Your task to perform on an android device: check data usage Image 0: 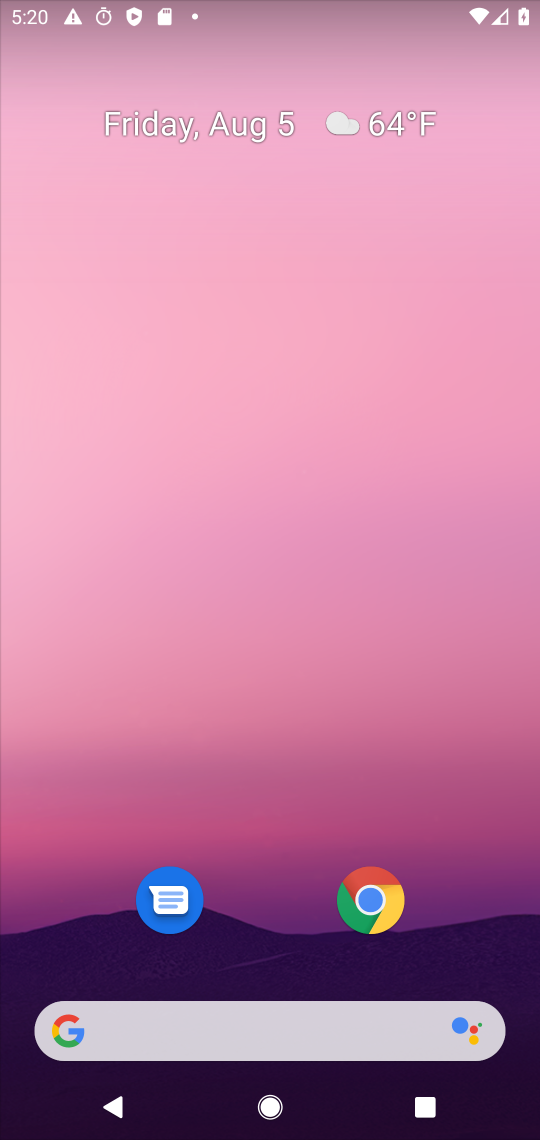
Step 0: drag from (253, 1012) to (271, 78)
Your task to perform on an android device: check data usage Image 1: 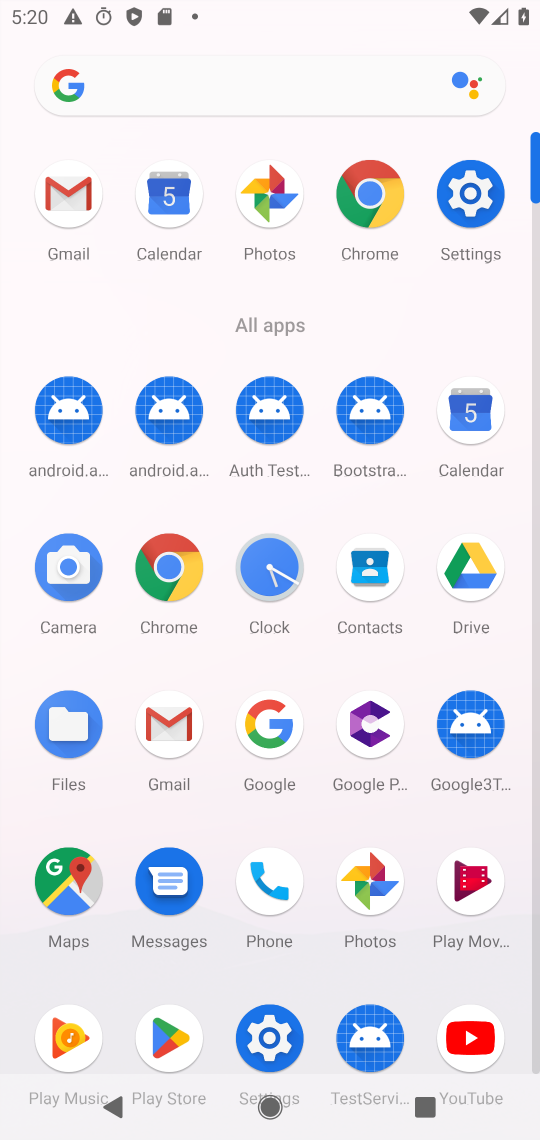
Step 1: click (458, 218)
Your task to perform on an android device: check data usage Image 2: 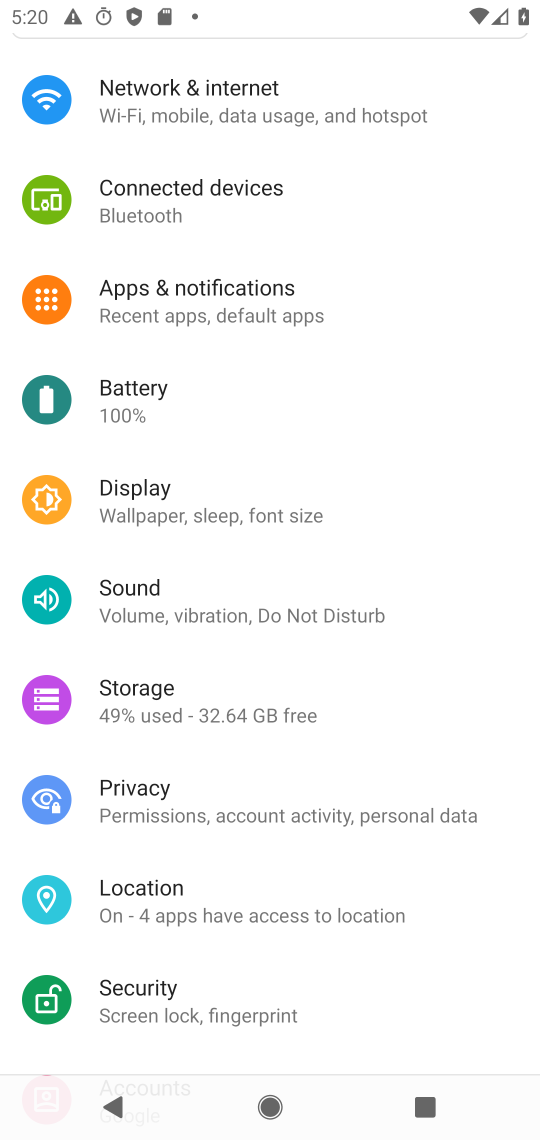
Step 2: click (154, 107)
Your task to perform on an android device: check data usage Image 3: 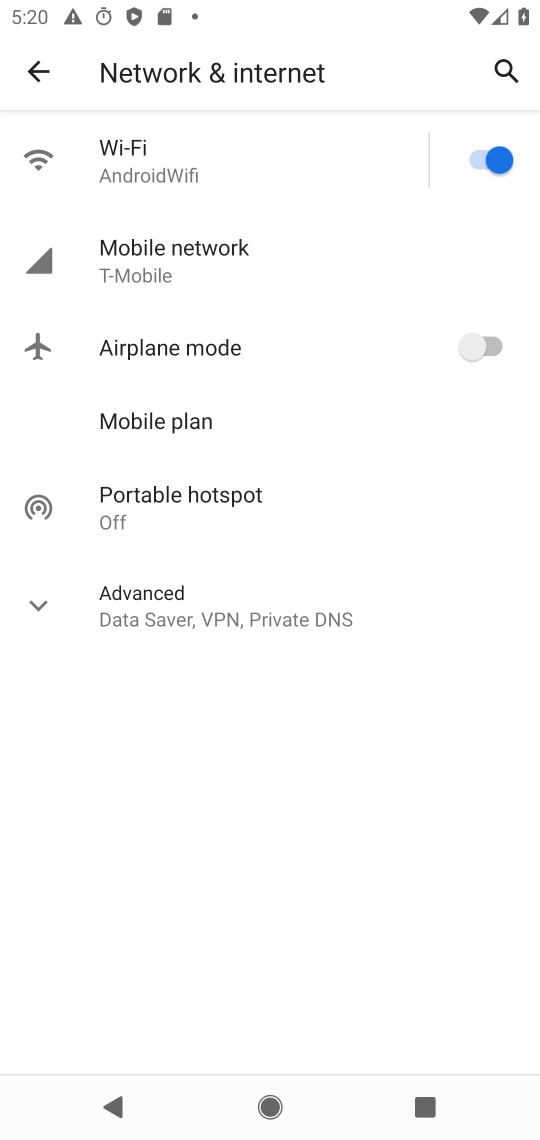
Step 3: click (236, 247)
Your task to perform on an android device: check data usage Image 4: 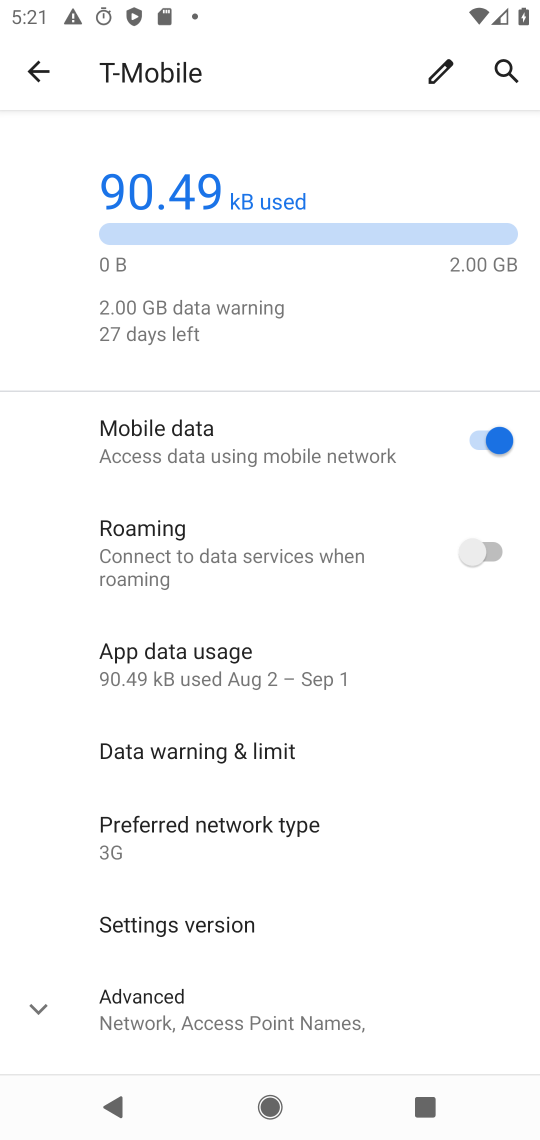
Step 4: task complete